Your task to perform on an android device: Check the weather Image 0: 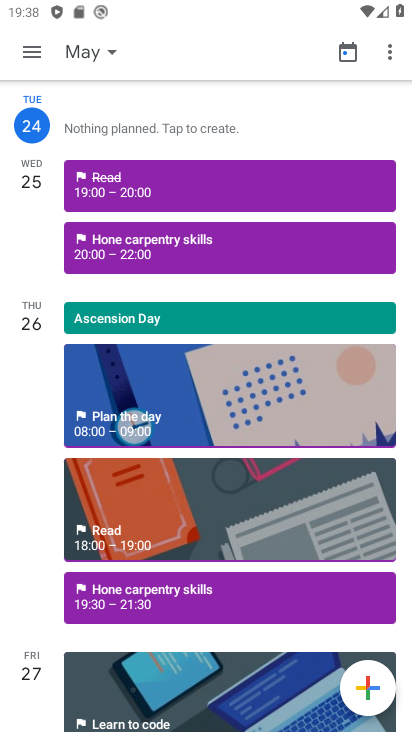
Step 0: press home button
Your task to perform on an android device: Check the weather Image 1: 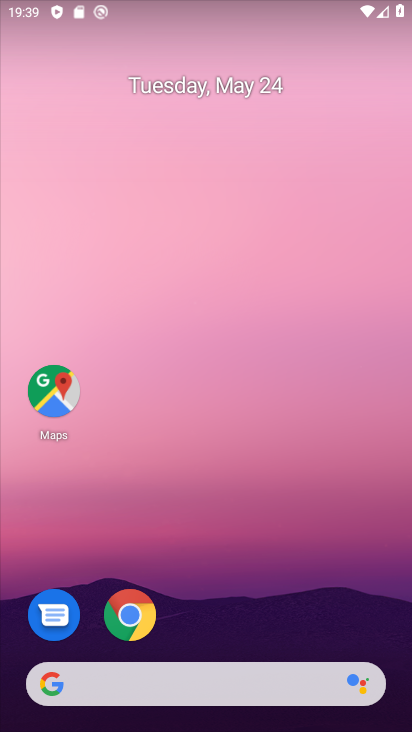
Step 1: click (128, 617)
Your task to perform on an android device: Check the weather Image 2: 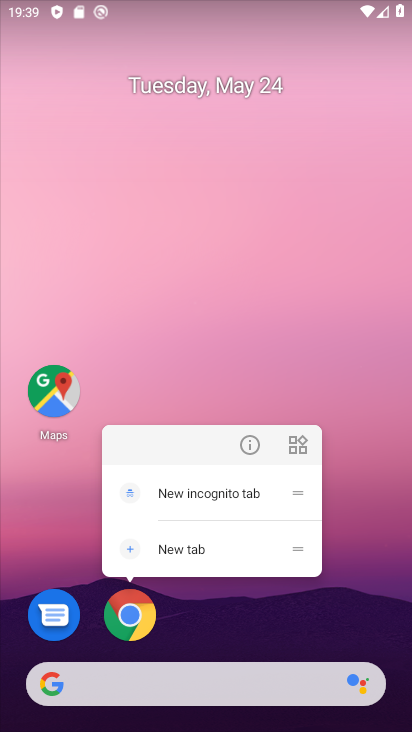
Step 2: click (128, 620)
Your task to perform on an android device: Check the weather Image 3: 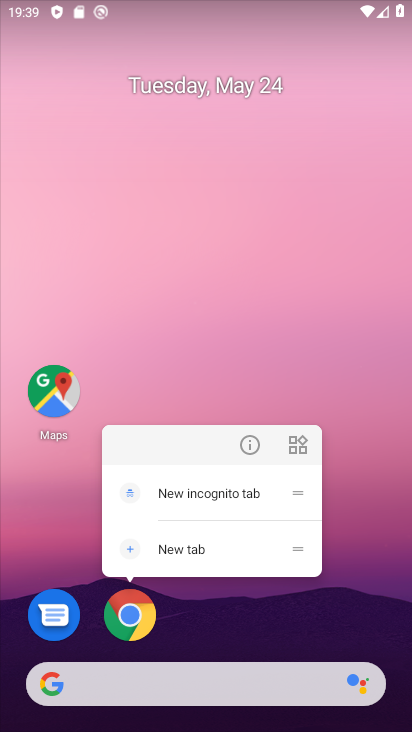
Step 3: click (119, 619)
Your task to perform on an android device: Check the weather Image 4: 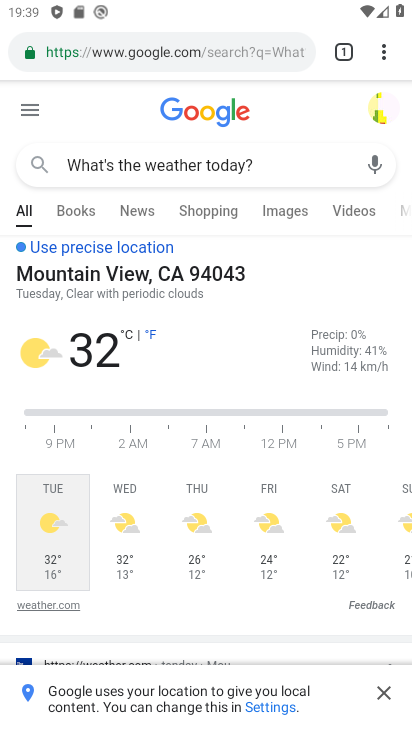
Step 4: click (324, 157)
Your task to perform on an android device: Check the weather Image 5: 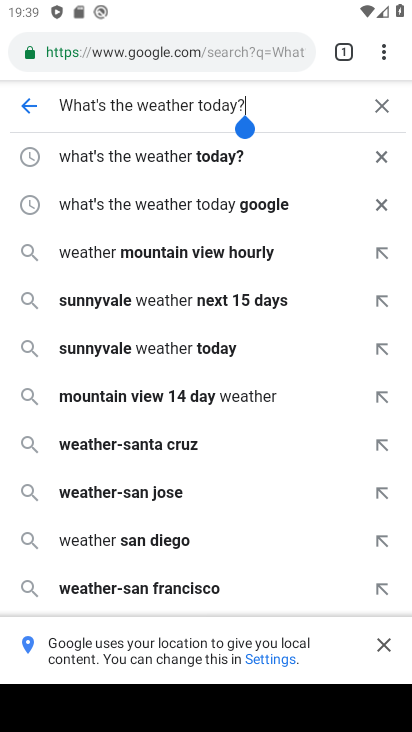
Step 5: click (377, 41)
Your task to perform on an android device: Check the weather Image 6: 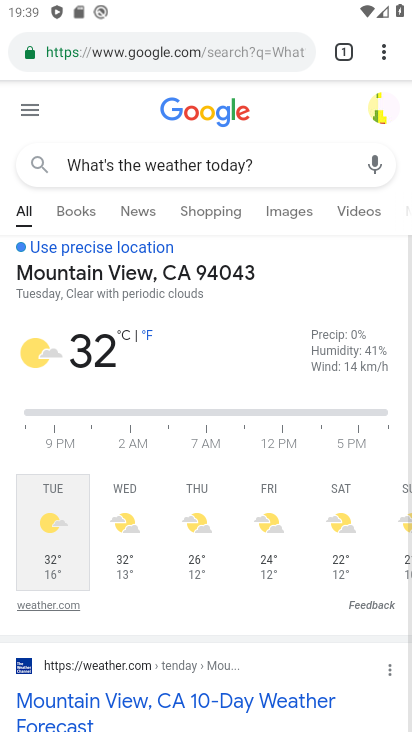
Step 6: click (385, 42)
Your task to perform on an android device: Check the weather Image 7: 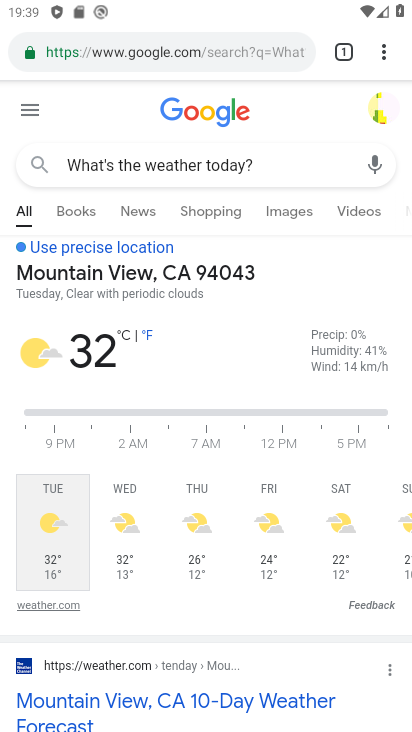
Step 7: click (370, 47)
Your task to perform on an android device: Check the weather Image 8: 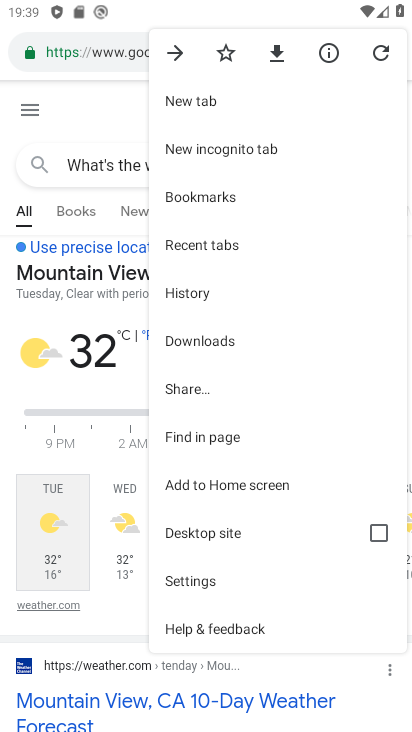
Step 8: click (251, 93)
Your task to perform on an android device: Check the weather Image 9: 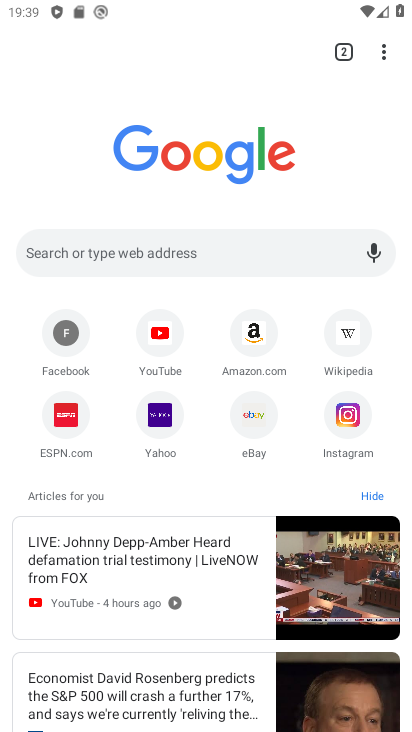
Step 9: click (109, 252)
Your task to perform on an android device: Check the weather Image 10: 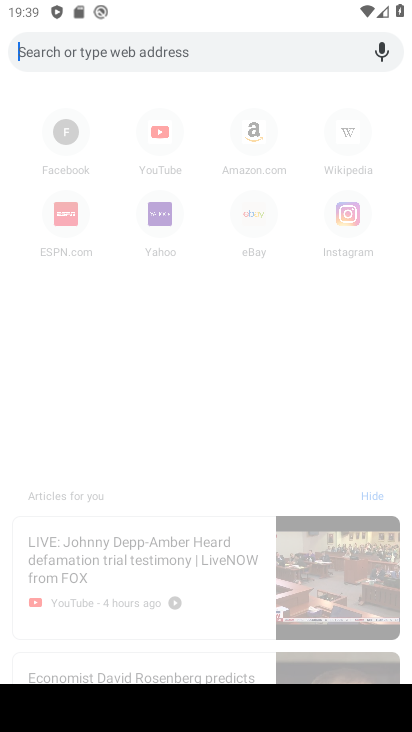
Step 10: type "Check the weather"
Your task to perform on an android device: Check the weather Image 11: 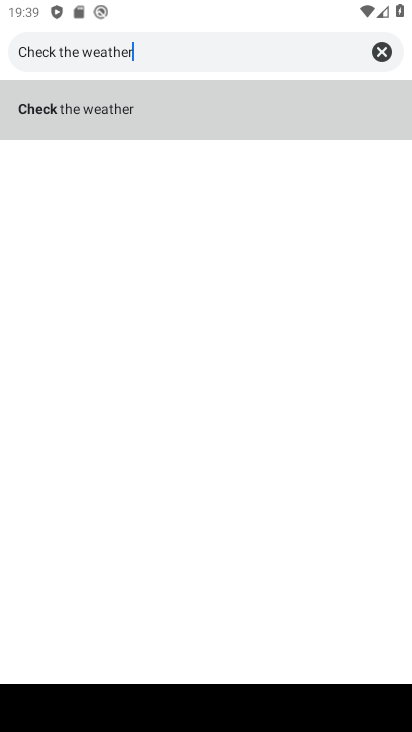
Step 11: click (216, 113)
Your task to perform on an android device: Check the weather Image 12: 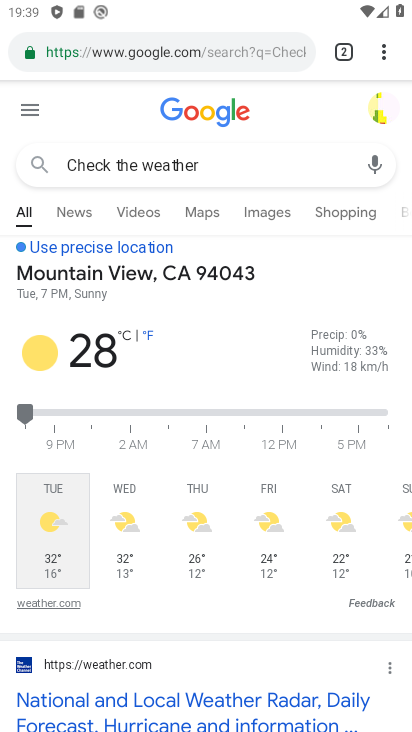
Step 12: task complete